Your task to perform on an android device: turn off javascript in the chrome app Image 0: 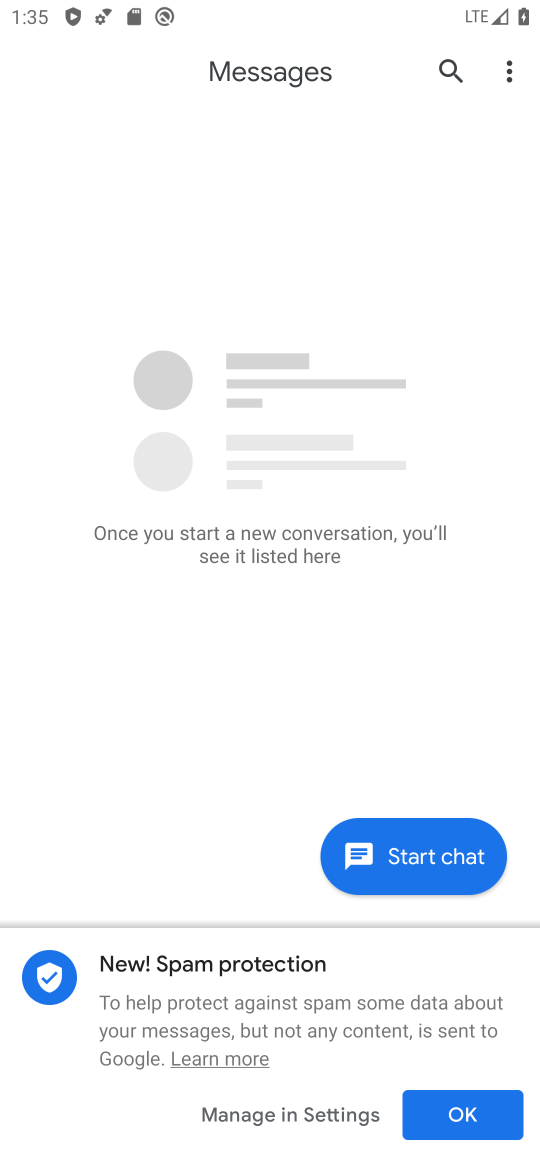
Step 0: press home button
Your task to perform on an android device: turn off javascript in the chrome app Image 1: 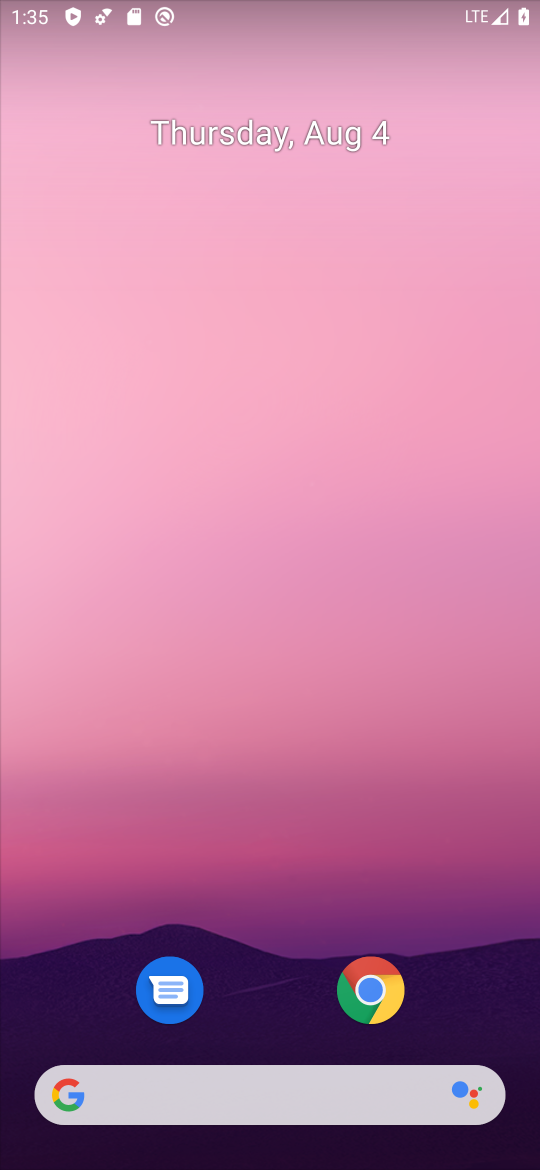
Step 1: click (362, 1005)
Your task to perform on an android device: turn off javascript in the chrome app Image 2: 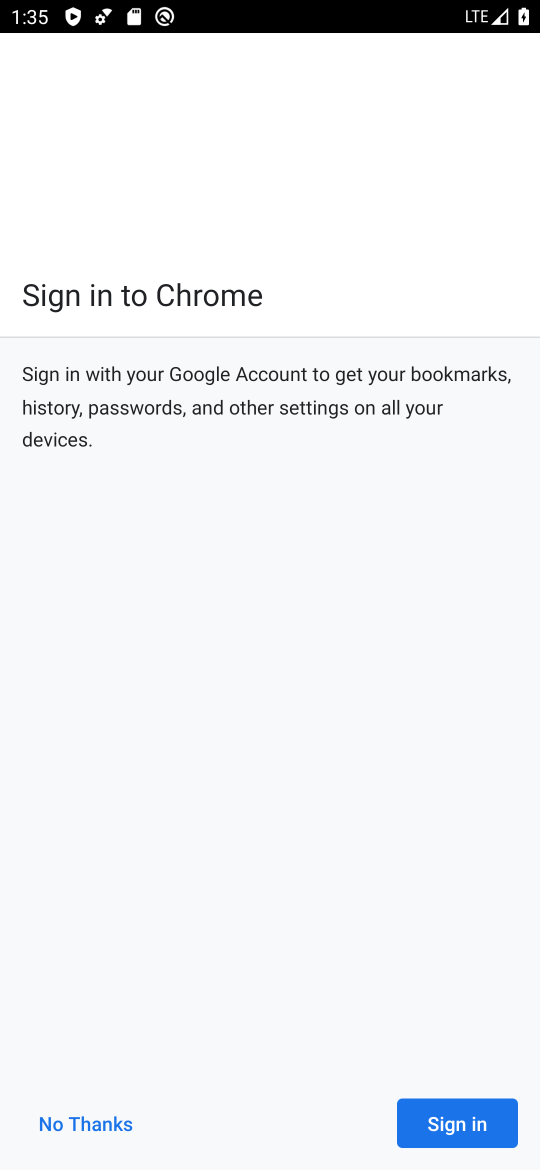
Step 2: click (485, 1143)
Your task to perform on an android device: turn off javascript in the chrome app Image 3: 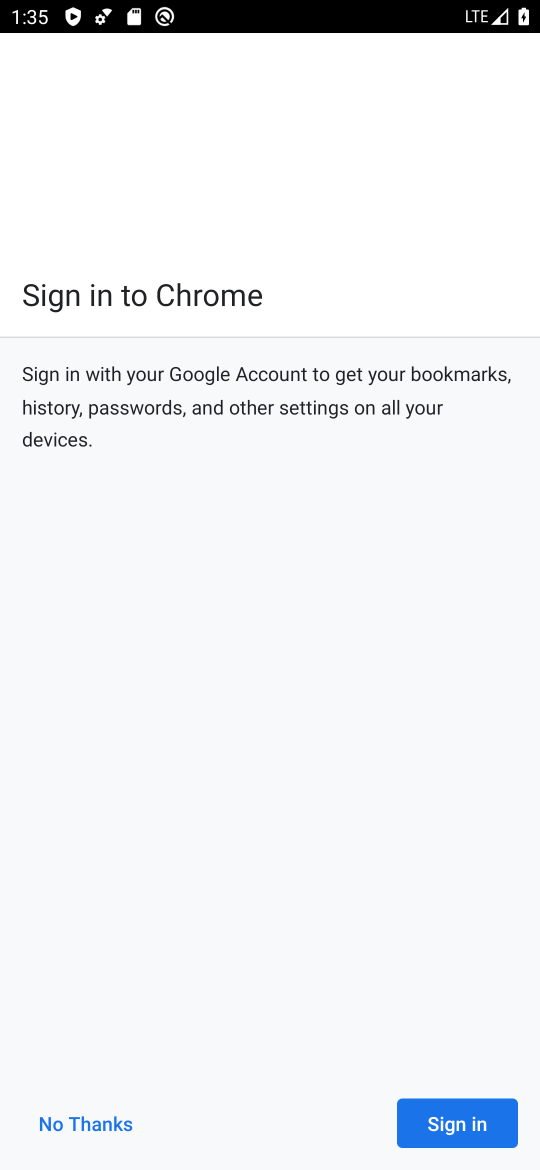
Step 3: click (485, 1143)
Your task to perform on an android device: turn off javascript in the chrome app Image 4: 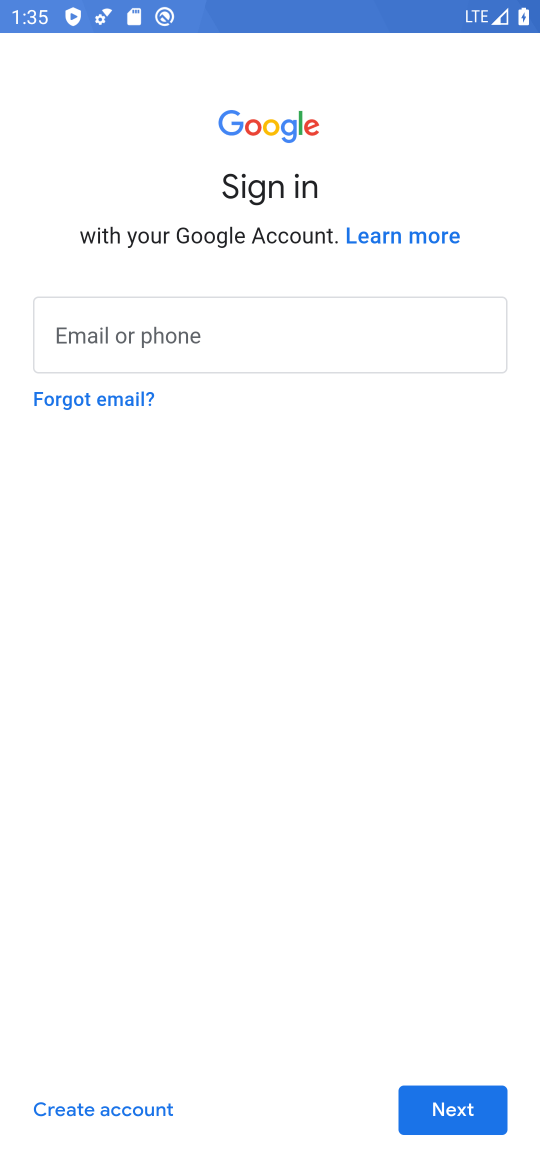
Step 4: task complete